Your task to perform on an android device: toggle pop-ups in chrome Image 0: 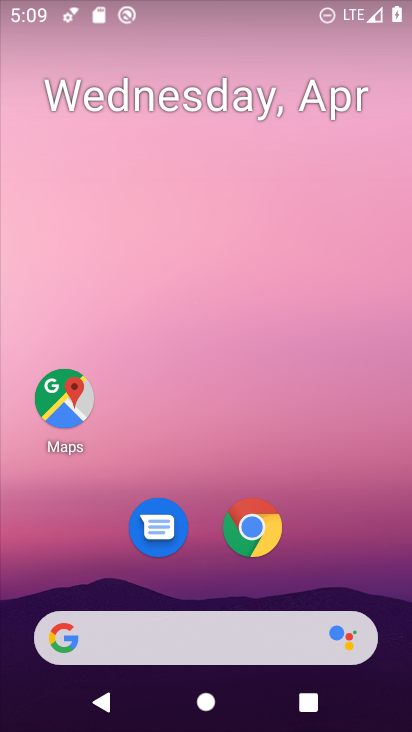
Step 0: click (258, 534)
Your task to perform on an android device: toggle pop-ups in chrome Image 1: 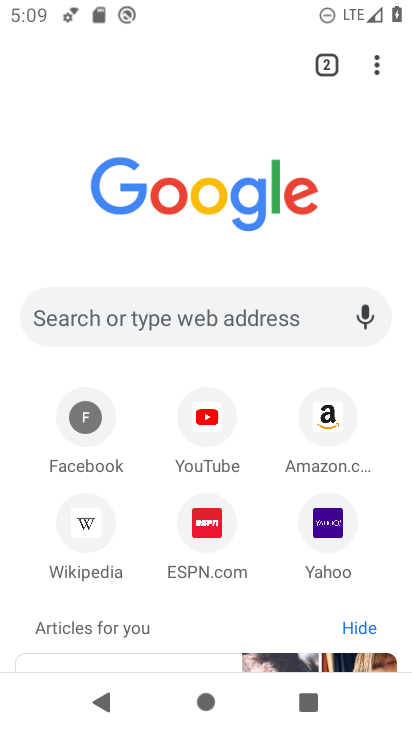
Step 1: click (375, 70)
Your task to perform on an android device: toggle pop-ups in chrome Image 2: 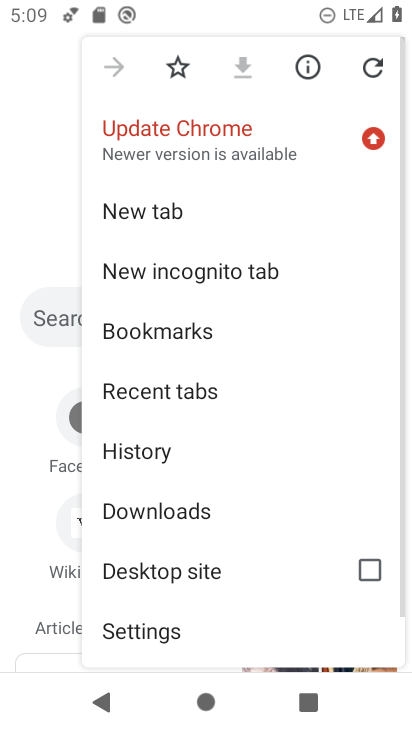
Step 2: drag from (266, 509) to (264, 86)
Your task to perform on an android device: toggle pop-ups in chrome Image 3: 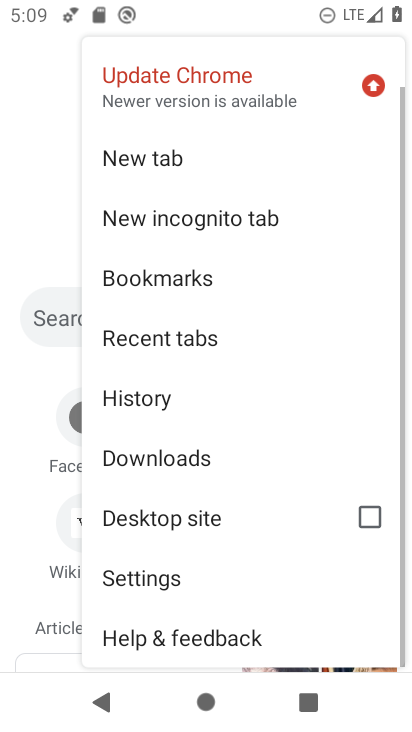
Step 3: click (147, 572)
Your task to perform on an android device: toggle pop-ups in chrome Image 4: 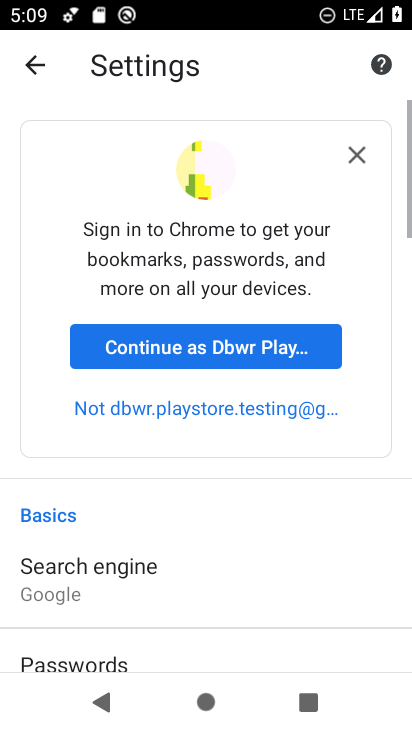
Step 4: drag from (218, 572) to (185, 127)
Your task to perform on an android device: toggle pop-ups in chrome Image 5: 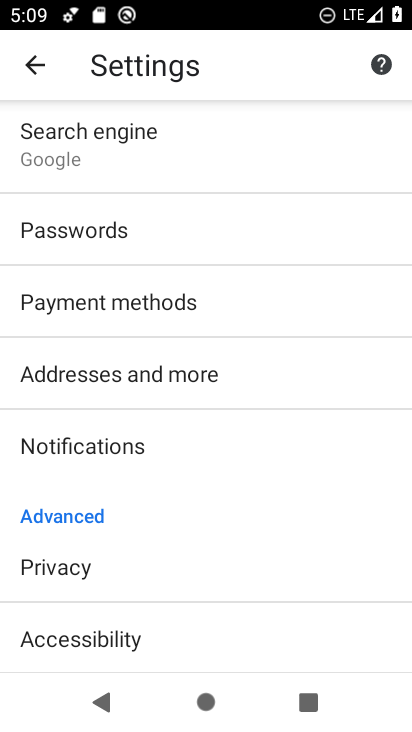
Step 5: drag from (170, 548) to (151, 197)
Your task to perform on an android device: toggle pop-ups in chrome Image 6: 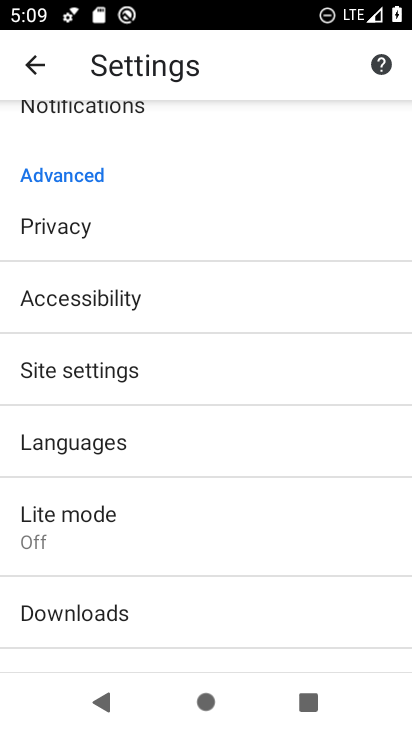
Step 6: click (66, 377)
Your task to perform on an android device: toggle pop-ups in chrome Image 7: 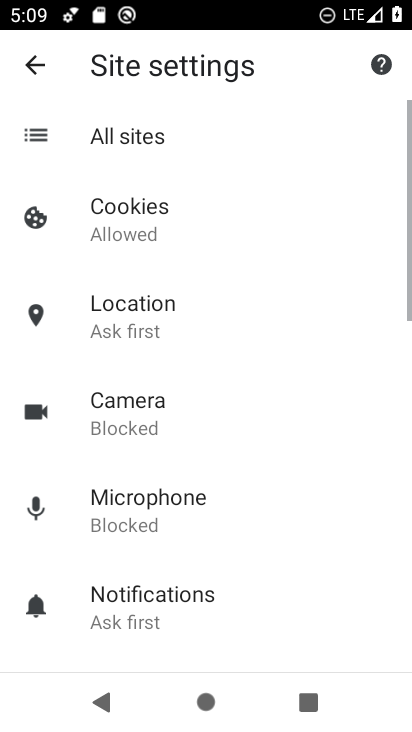
Step 7: drag from (306, 564) to (294, 173)
Your task to perform on an android device: toggle pop-ups in chrome Image 8: 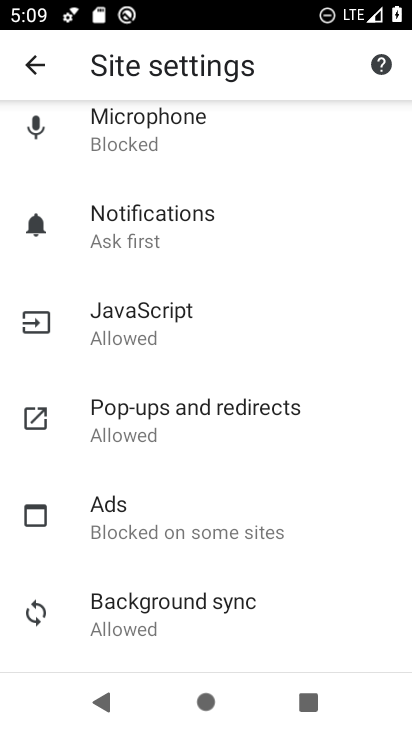
Step 8: click (173, 418)
Your task to perform on an android device: toggle pop-ups in chrome Image 9: 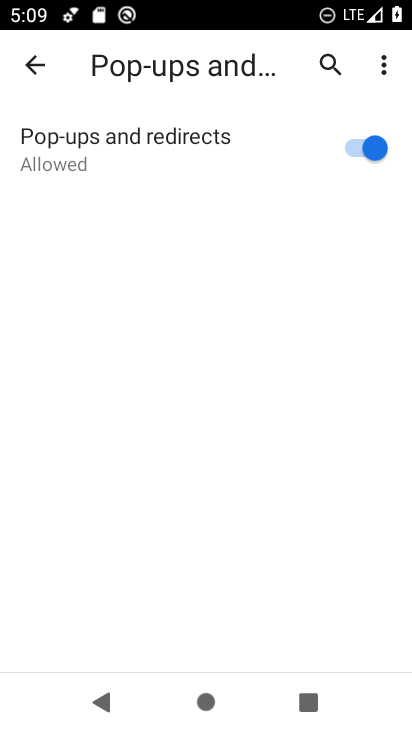
Step 9: click (357, 151)
Your task to perform on an android device: toggle pop-ups in chrome Image 10: 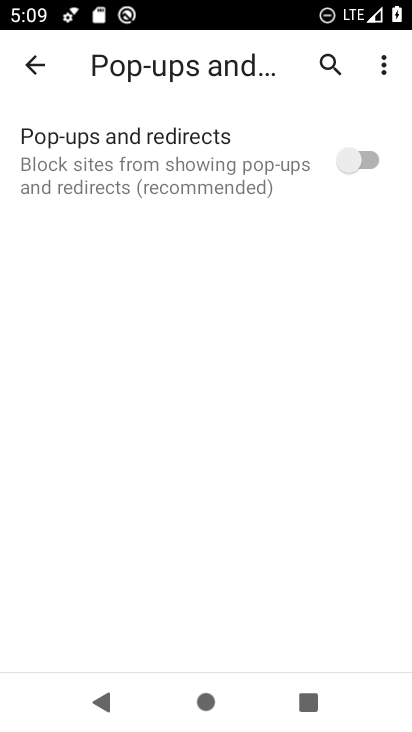
Step 10: task complete